Your task to perform on an android device: check storage Image 0: 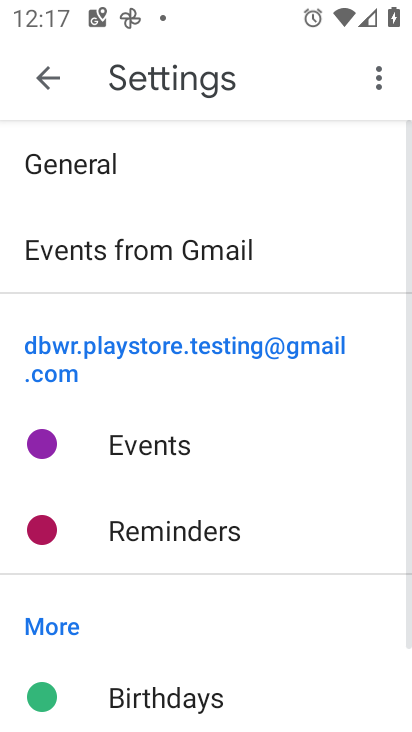
Step 0: press home button
Your task to perform on an android device: check storage Image 1: 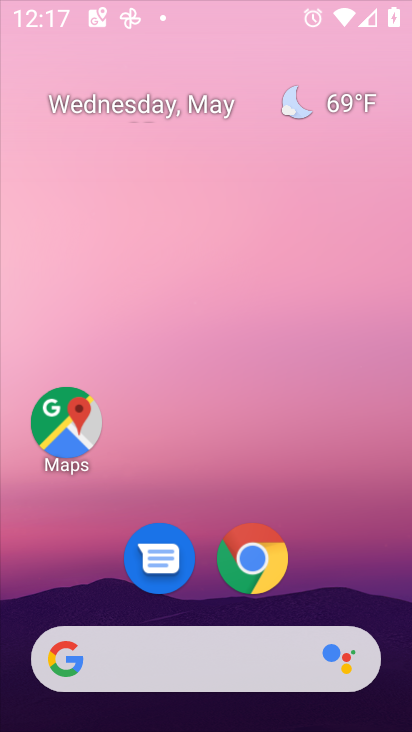
Step 1: drag from (399, 687) to (228, 40)
Your task to perform on an android device: check storage Image 2: 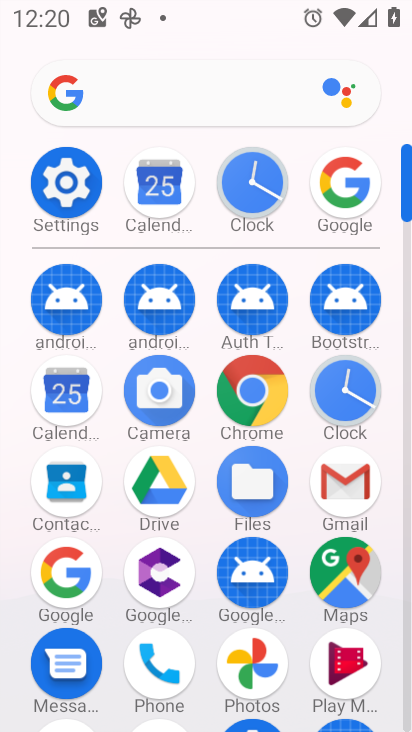
Step 2: click (78, 190)
Your task to perform on an android device: check storage Image 3: 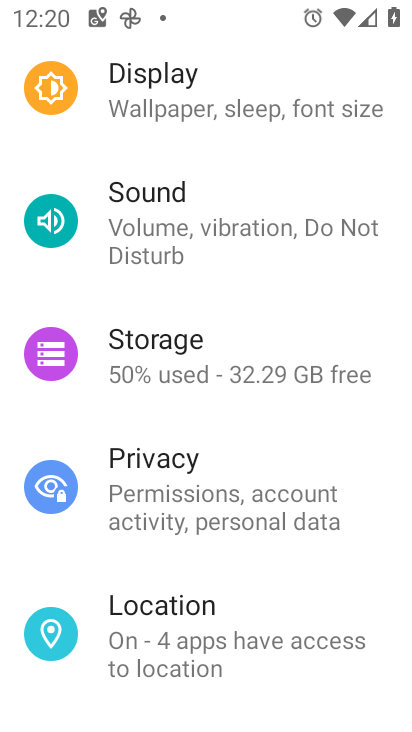
Step 3: drag from (142, 592) to (200, 272)
Your task to perform on an android device: check storage Image 4: 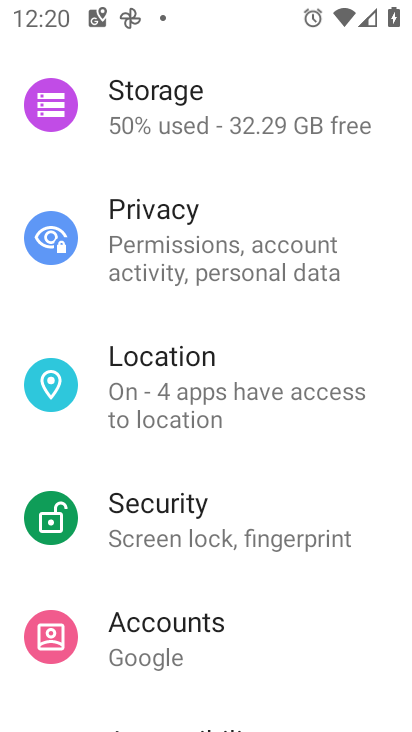
Step 4: click (148, 118)
Your task to perform on an android device: check storage Image 5: 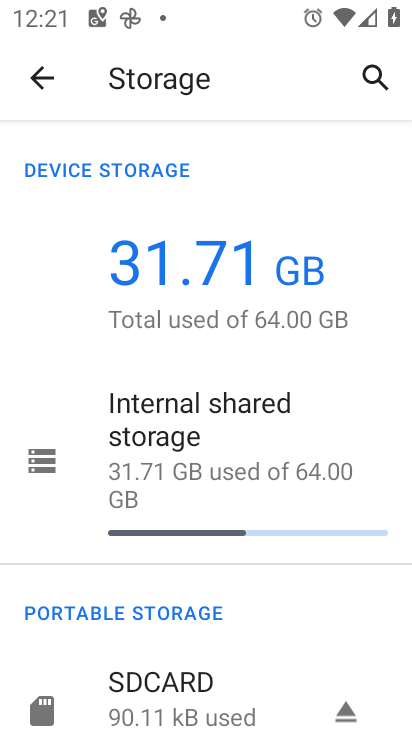
Step 5: click (166, 427)
Your task to perform on an android device: check storage Image 6: 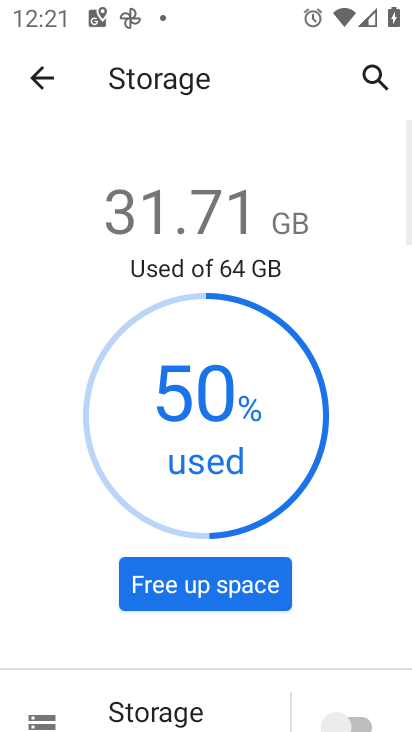
Step 6: task complete